Your task to perform on an android device: Go to Google Image 0: 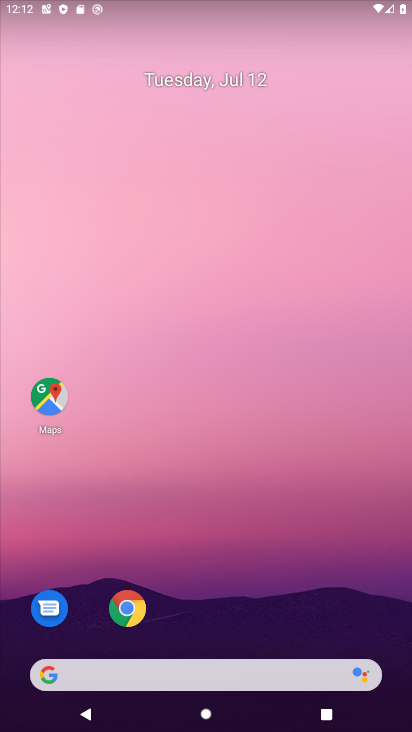
Step 0: click (70, 676)
Your task to perform on an android device: Go to Google Image 1: 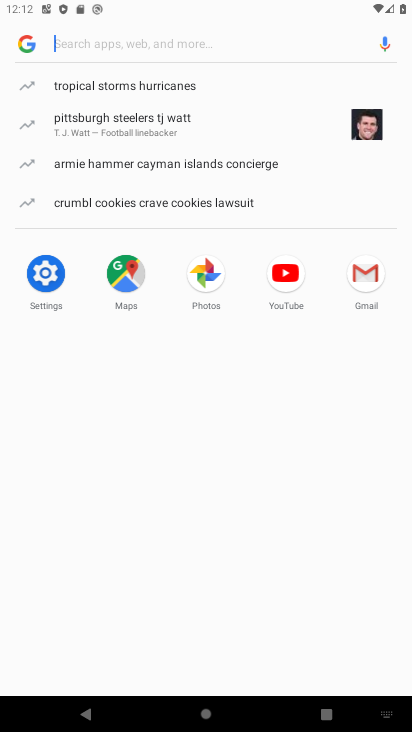
Step 1: task complete